Your task to perform on an android device: Go to calendar. Show me events next week Image 0: 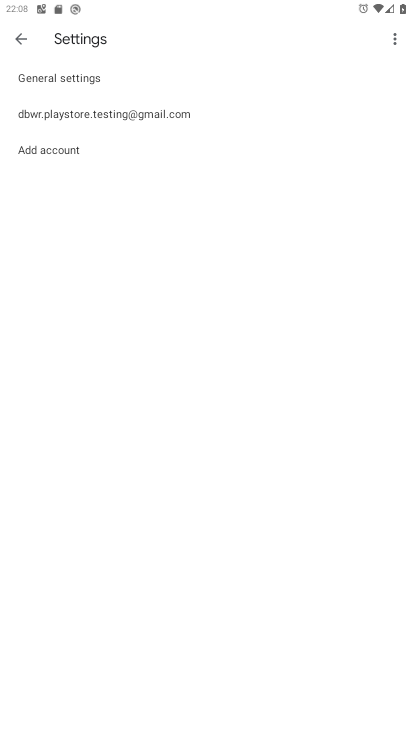
Step 0: press home button
Your task to perform on an android device: Go to calendar. Show me events next week Image 1: 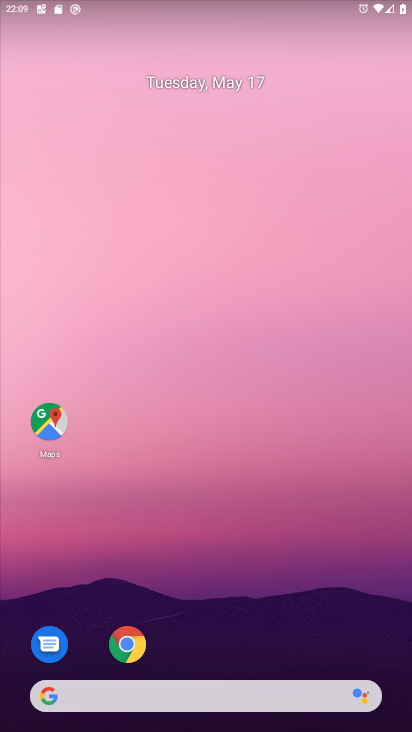
Step 1: drag from (228, 649) to (224, 78)
Your task to perform on an android device: Go to calendar. Show me events next week Image 2: 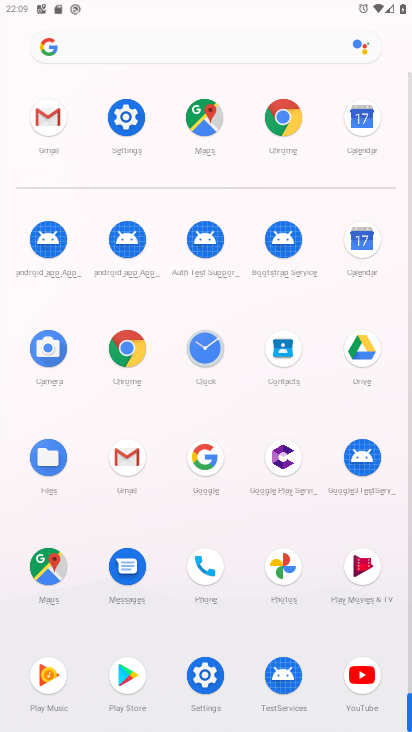
Step 2: click (355, 117)
Your task to perform on an android device: Go to calendar. Show me events next week Image 3: 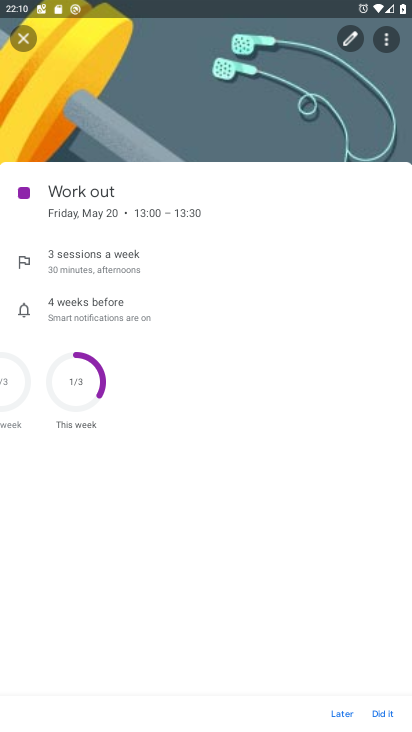
Step 3: press back button
Your task to perform on an android device: Go to calendar. Show me events next week Image 4: 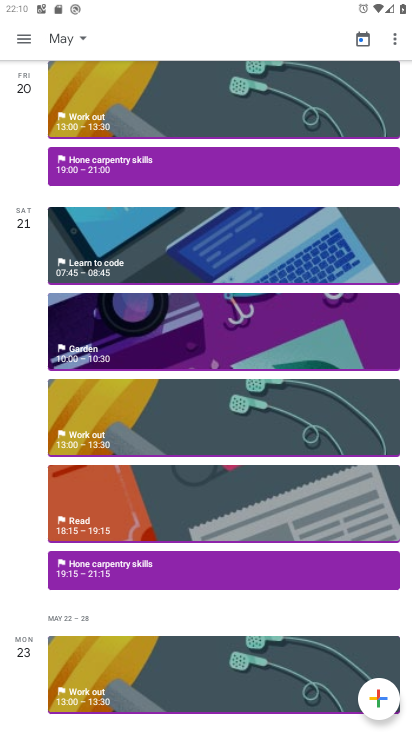
Step 4: click (26, 37)
Your task to perform on an android device: Go to calendar. Show me events next week Image 5: 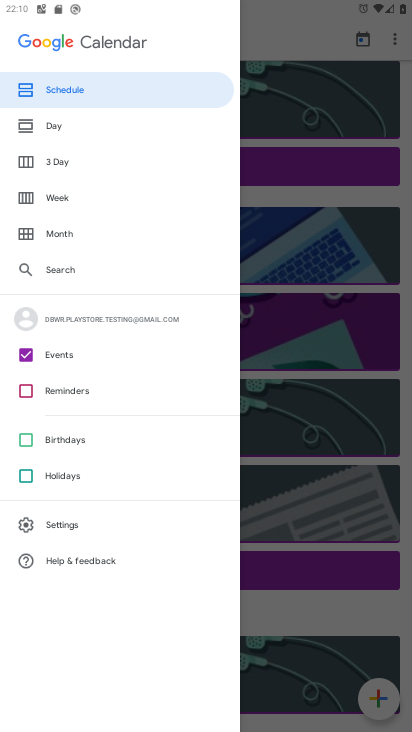
Step 5: click (46, 187)
Your task to perform on an android device: Go to calendar. Show me events next week Image 6: 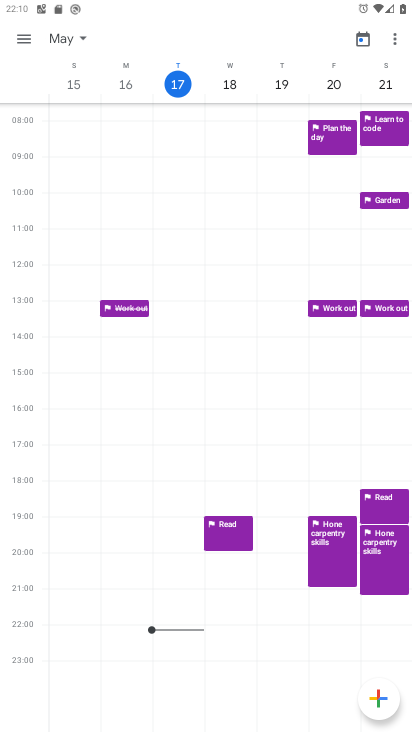
Step 6: drag from (382, 76) to (53, 85)
Your task to perform on an android device: Go to calendar. Show me events next week Image 7: 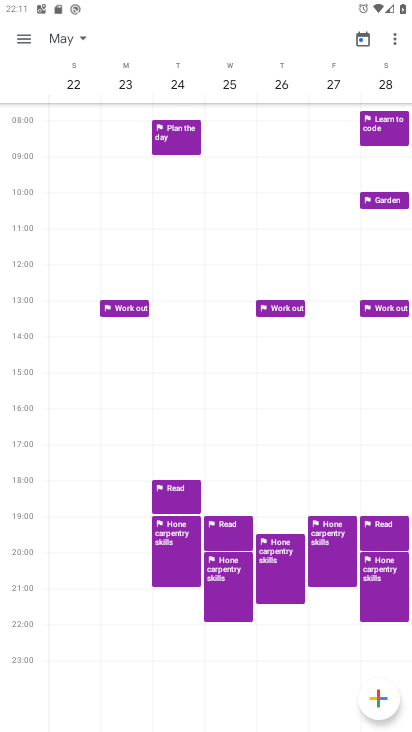
Step 7: click (72, 82)
Your task to perform on an android device: Go to calendar. Show me events next week Image 8: 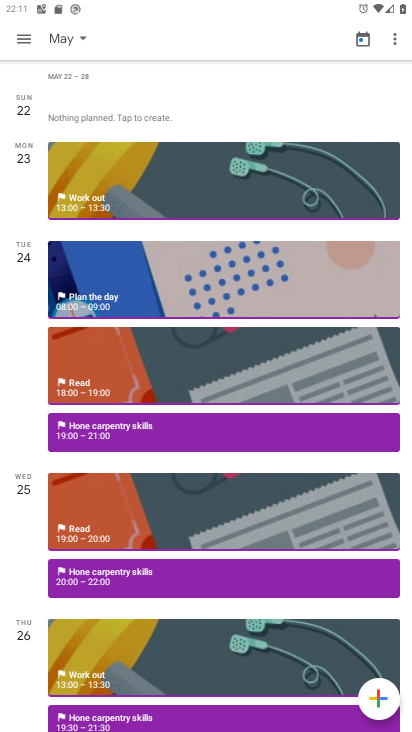
Step 8: task complete